Your task to perform on an android device: Go to notification settings Image 0: 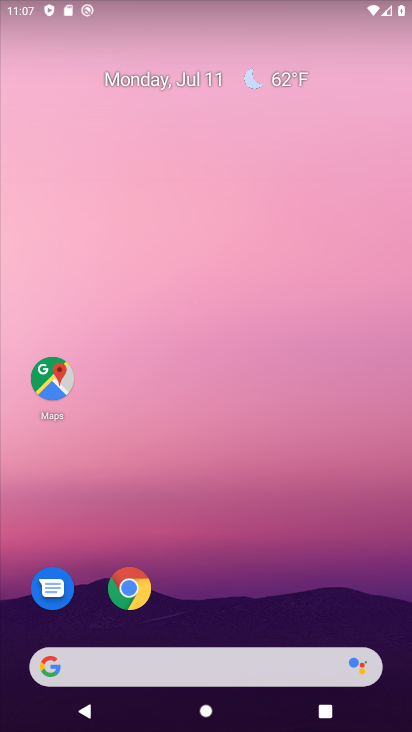
Step 0: drag from (245, 442) to (181, 76)
Your task to perform on an android device: Go to notification settings Image 1: 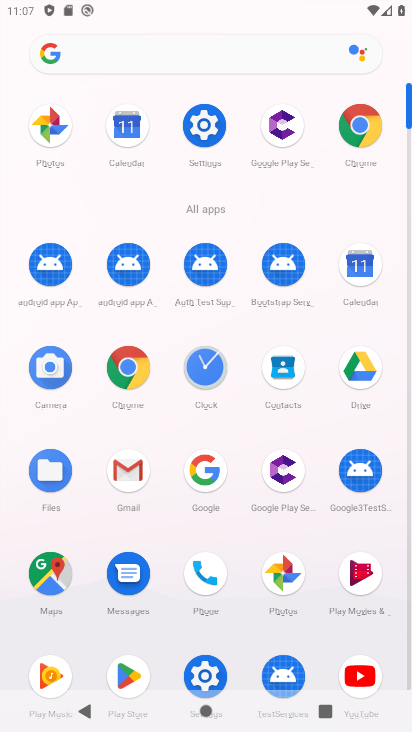
Step 1: click (197, 119)
Your task to perform on an android device: Go to notification settings Image 2: 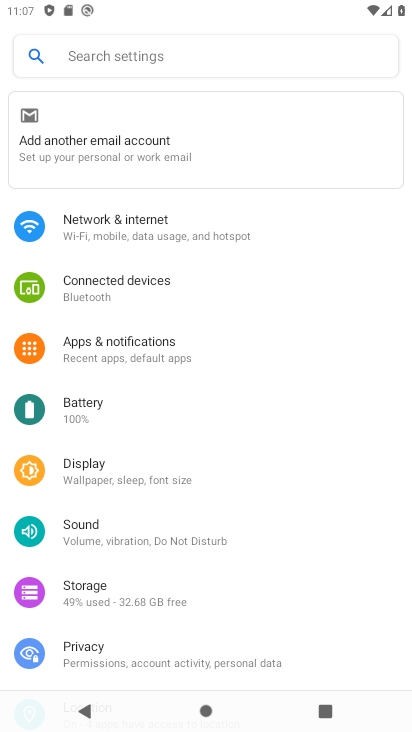
Step 2: click (127, 342)
Your task to perform on an android device: Go to notification settings Image 3: 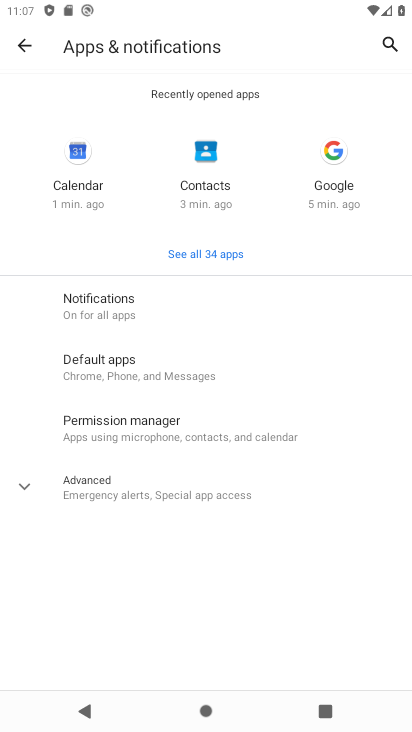
Step 3: click (100, 305)
Your task to perform on an android device: Go to notification settings Image 4: 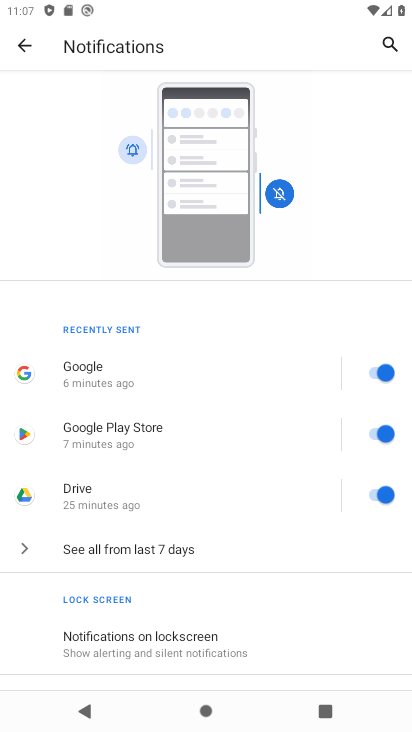
Step 4: drag from (210, 525) to (206, 430)
Your task to perform on an android device: Go to notification settings Image 5: 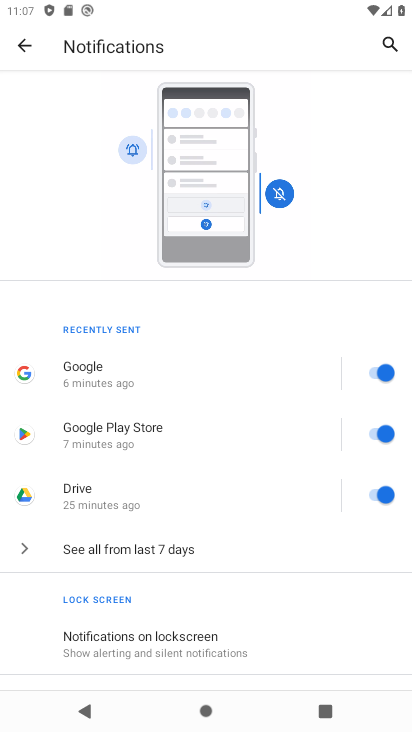
Step 5: drag from (208, 538) to (185, 352)
Your task to perform on an android device: Go to notification settings Image 6: 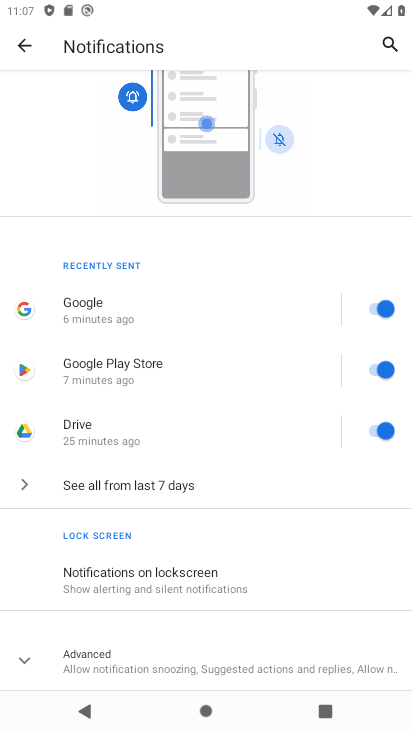
Step 6: click (92, 650)
Your task to perform on an android device: Go to notification settings Image 7: 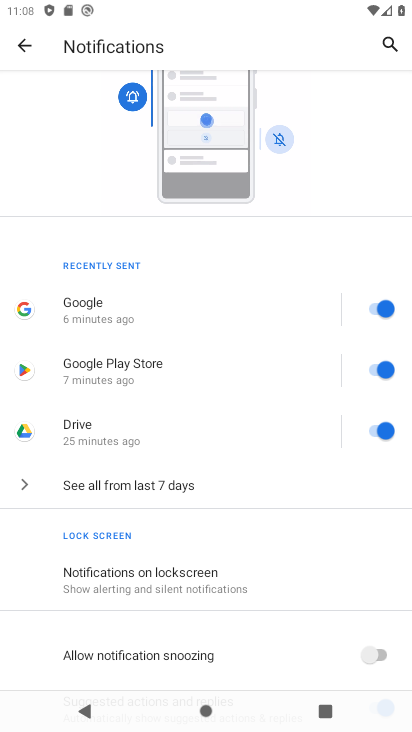
Step 7: task complete